Your task to perform on an android device: Go to Google maps Image 0: 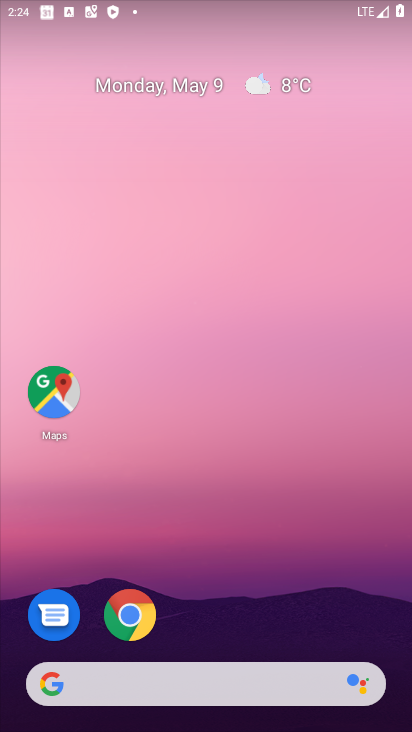
Step 0: click (51, 387)
Your task to perform on an android device: Go to Google maps Image 1: 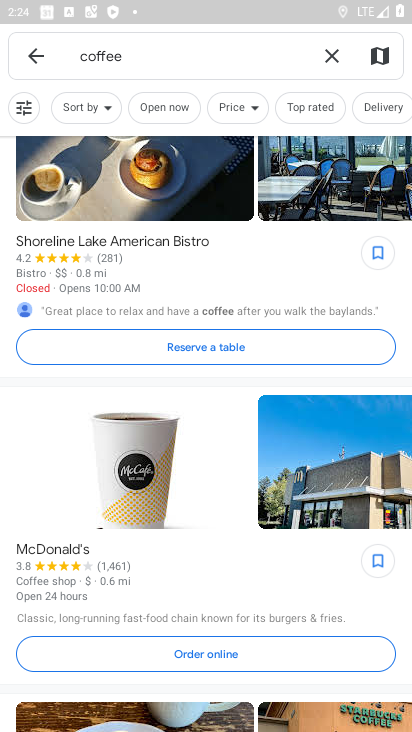
Step 1: click (332, 49)
Your task to perform on an android device: Go to Google maps Image 2: 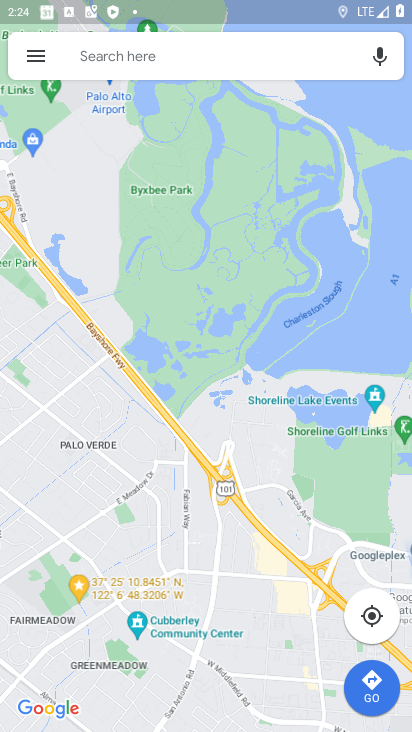
Step 2: task complete